Your task to perform on an android device: change text size in settings app Image 0: 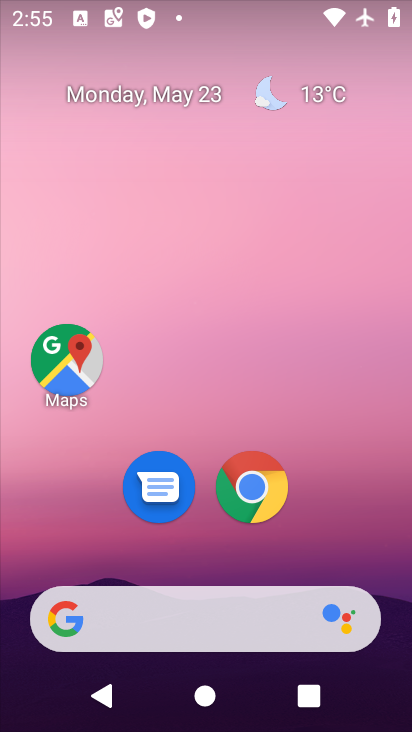
Step 0: drag from (394, 612) to (341, 52)
Your task to perform on an android device: change text size in settings app Image 1: 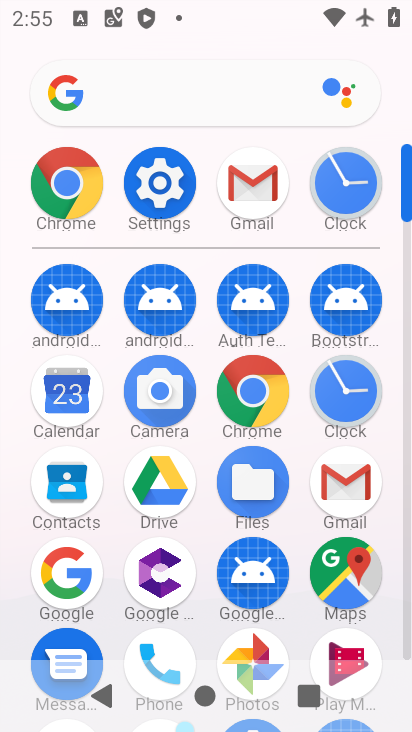
Step 1: click (408, 624)
Your task to perform on an android device: change text size in settings app Image 2: 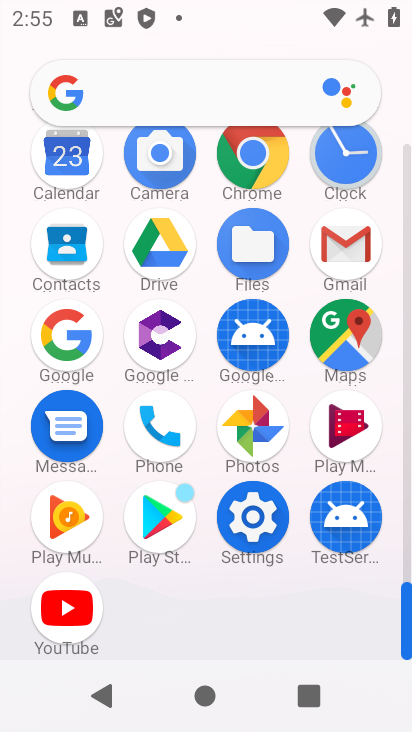
Step 2: click (252, 516)
Your task to perform on an android device: change text size in settings app Image 3: 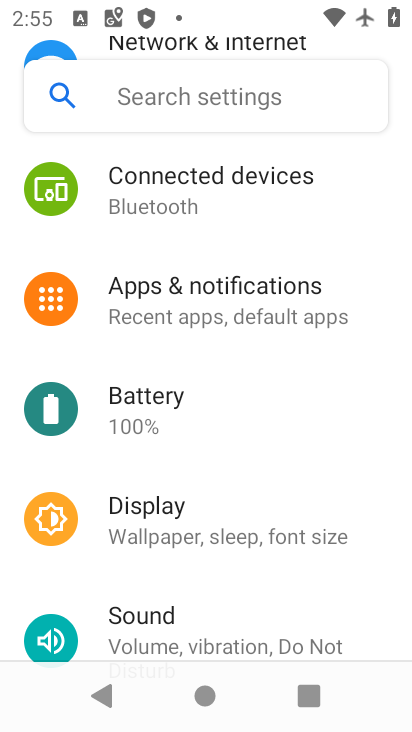
Step 3: drag from (271, 591) to (263, 471)
Your task to perform on an android device: change text size in settings app Image 4: 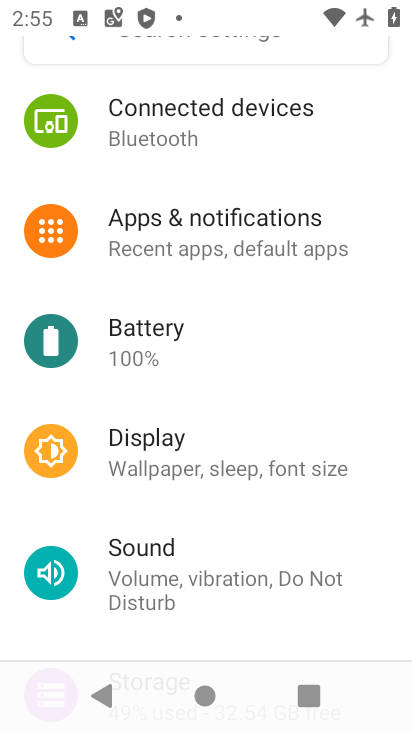
Step 4: click (177, 456)
Your task to perform on an android device: change text size in settings app Image 5: 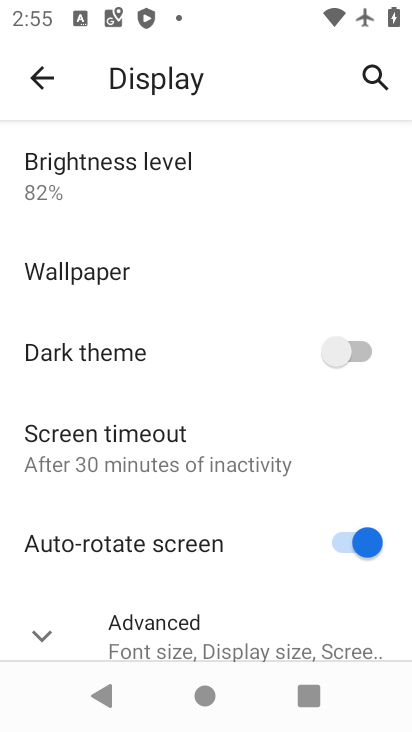
Step 5: click (32, 635)
Your task to perform on an android device: change text size in settings app Image 6: 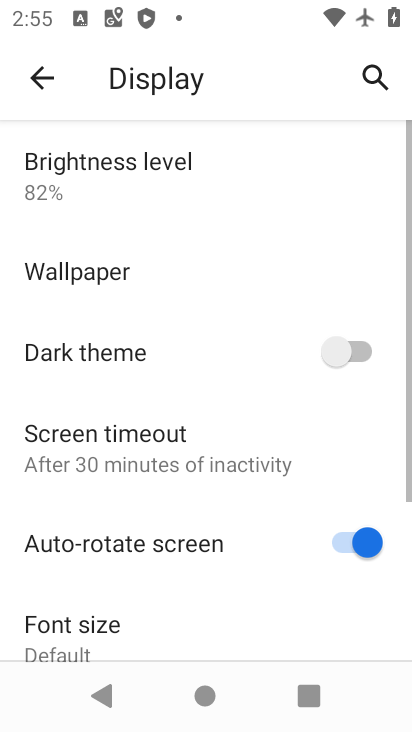
Step 6: drag from (193, 613) to (191, 212)
Your task to perform on an android device: change text size in settings app Image 7: 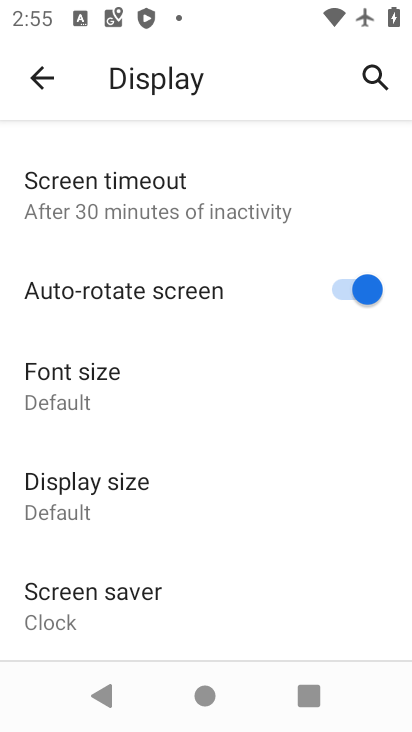
Step 7: click (78, 384)
Your task to perform on an android device: change text size in settings app Image 8: 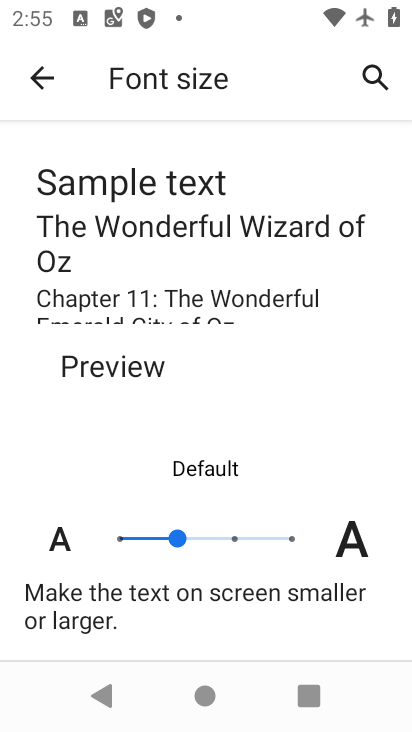
Step 8: click (227, 540)
Your task to perform on an android device: change text size in settings app Image 9: 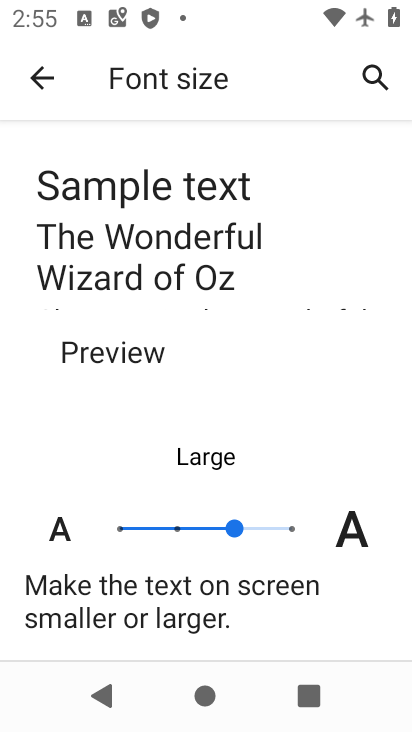
Step 9: task complete